Your task to perform on an android device: check out phone information Image 0: 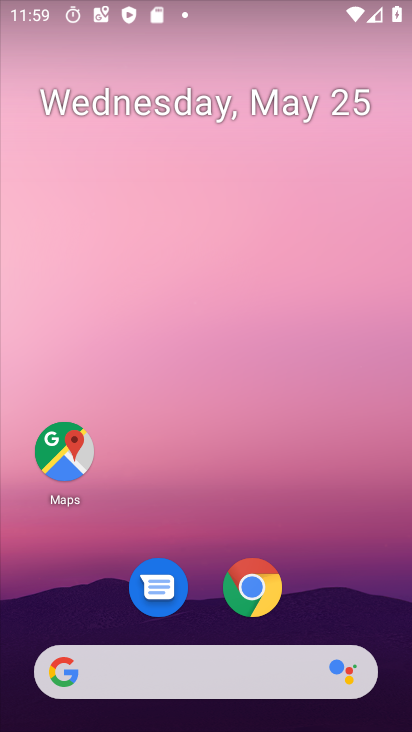
Step 0: drag from (220, 647) to (191, 176)
Your task to perform on an android device: check out phone information Image 1: 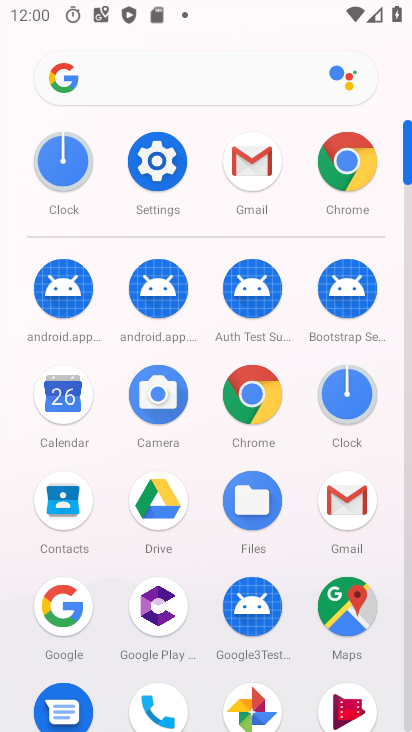
Step 1: click (123, 187)
Your task to perform on an android device: check out phone information Image 2: 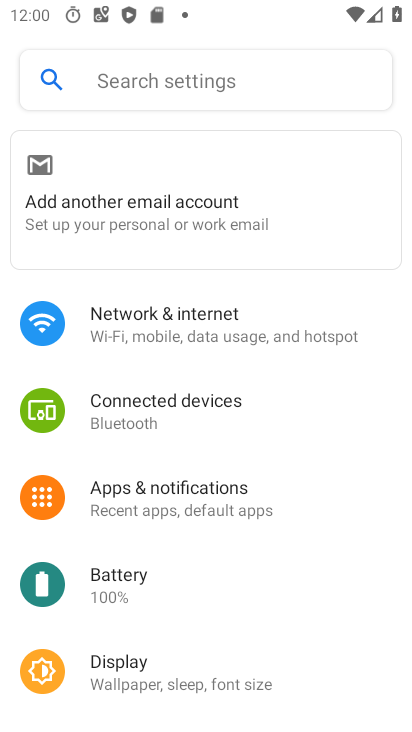
Step 2: click (146, 81)
Your task to perform on an android device: check out phone information Image 3: 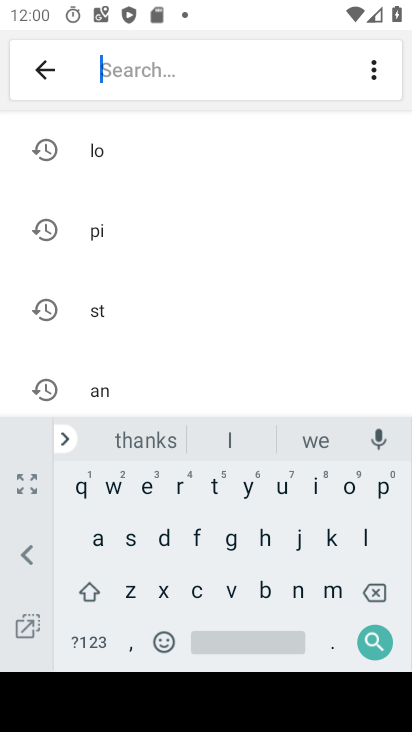
Step 3: click (23, 487)
Your task to perform on an android device: check out phone information Image 4: 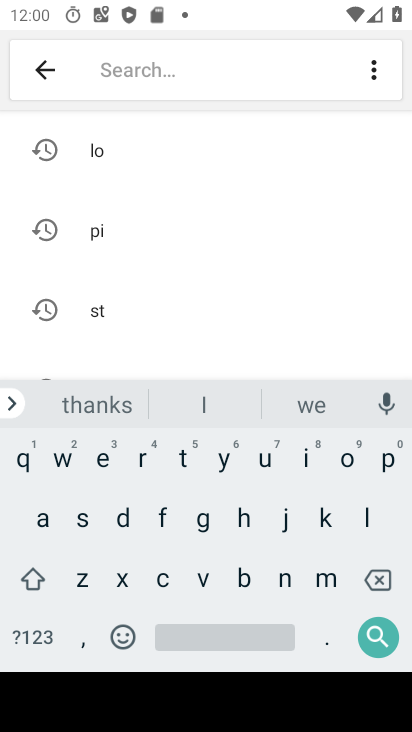
Step 4: click (41, 518)
Your task to perform on an android device: check out phone information Image 5: 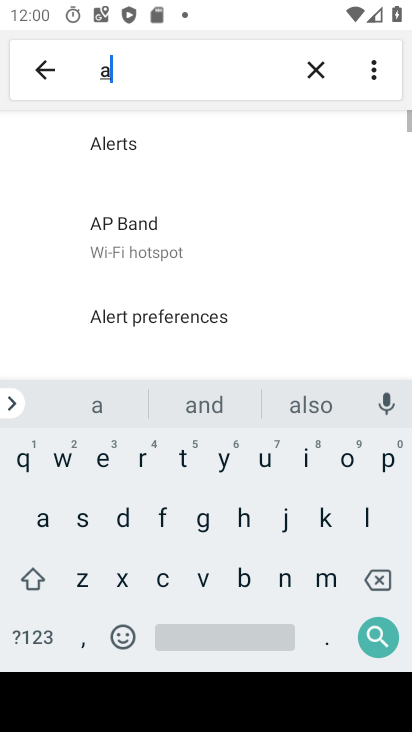
Step 5: click (239, 579)
Your task to perform on an android device: check out phone information Image 6: 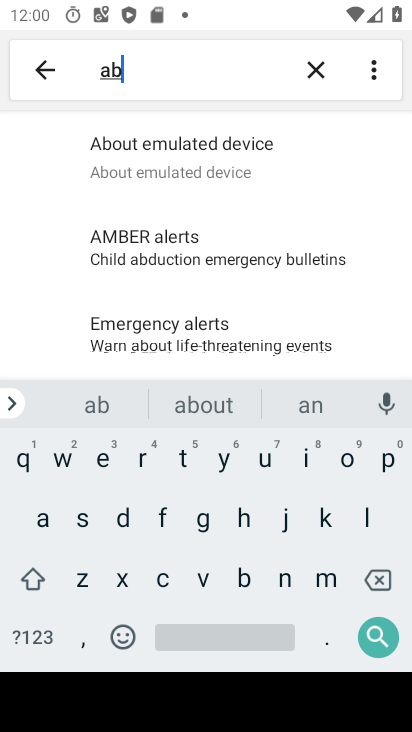
Step 6: click (206, 163)
Your task to perform on an android device: check out phone information Image 7: 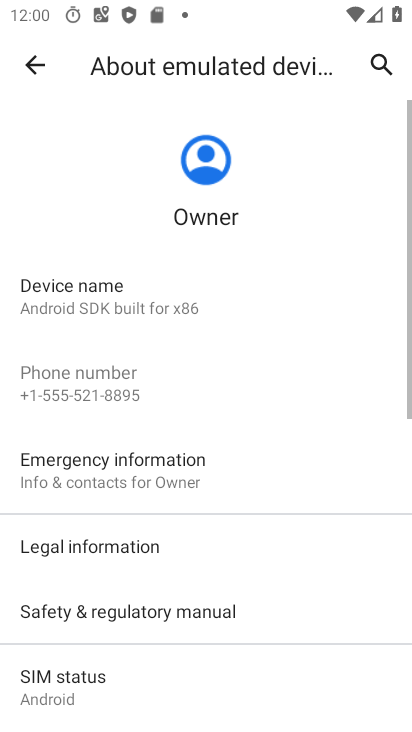
Step 7: task complete